Your task to perform on an android device: Go to battery settings Image 0: 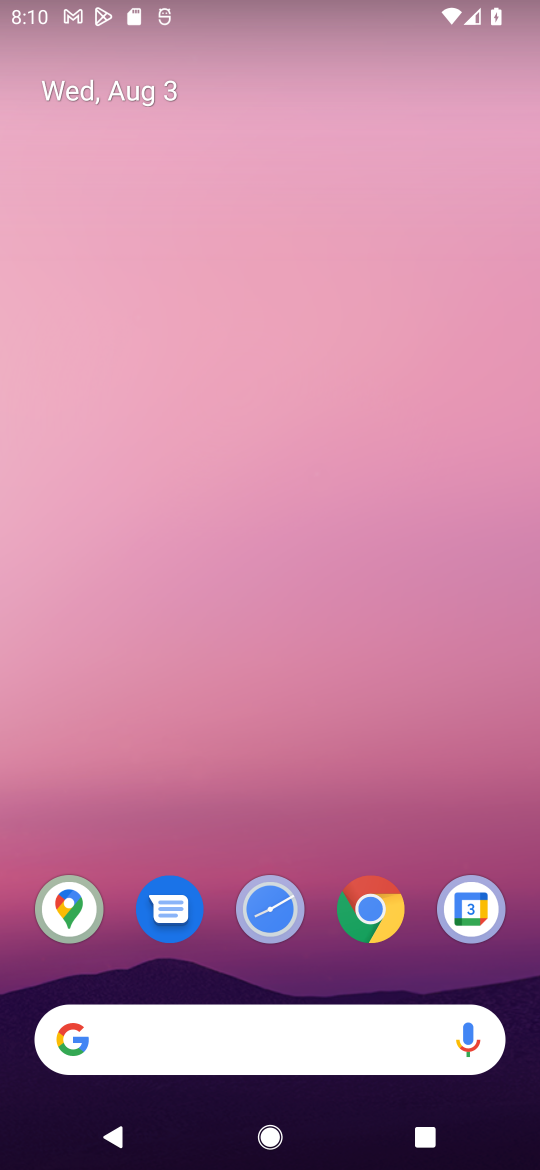
Step 0: press home button
Your task to perform on an android device: Go to battery settings Image 1: 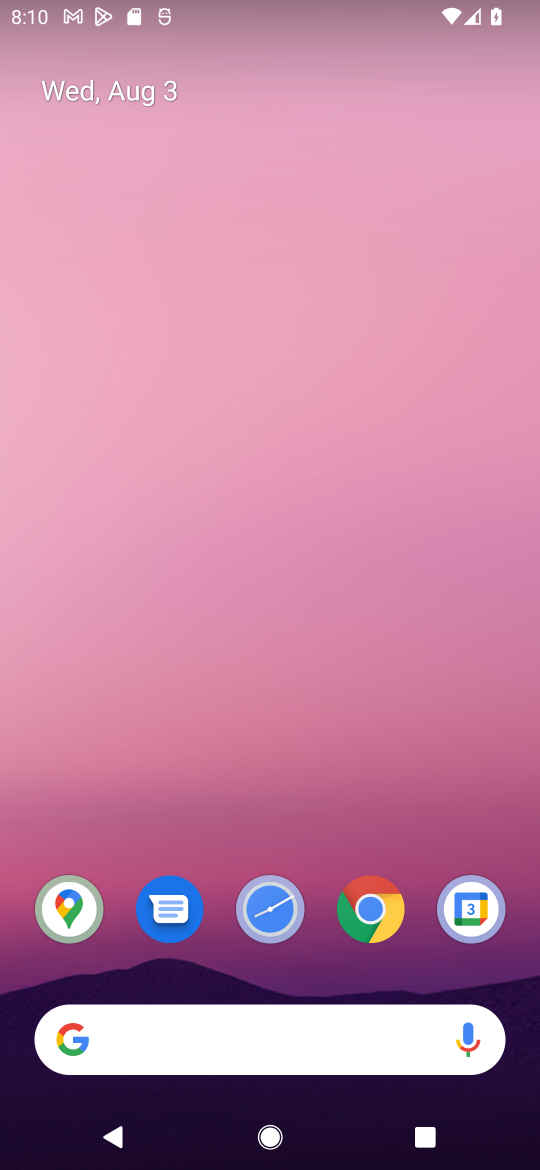
Step 1: drag from (338, 767) to (393, 221)
Your task to perform on an android device: Go to battery settings Image 2: 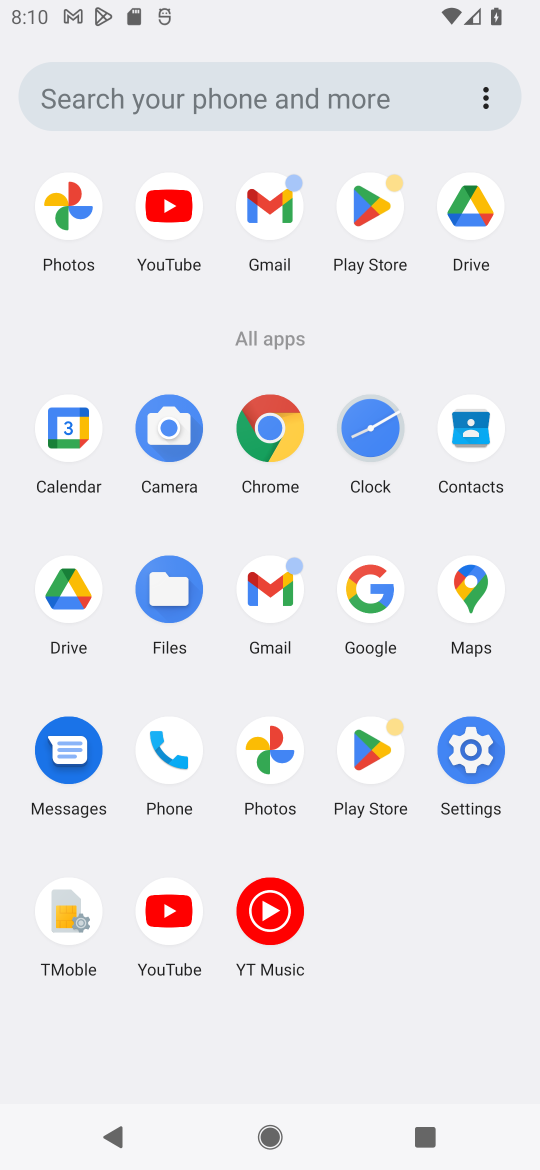
Step 2: click (473, 762)
Your task to perform on an android device: Go to battery settings Image 3: 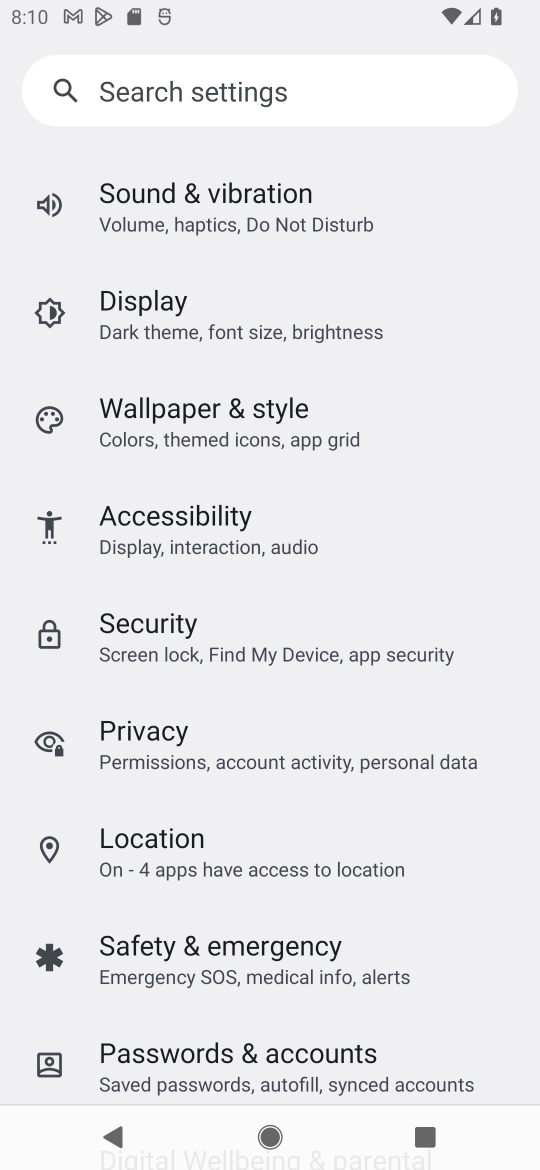
Step 3: drag from (453, 937) to (476, 757)
Your task to perform on an android device: Go to battery settings Image 4: 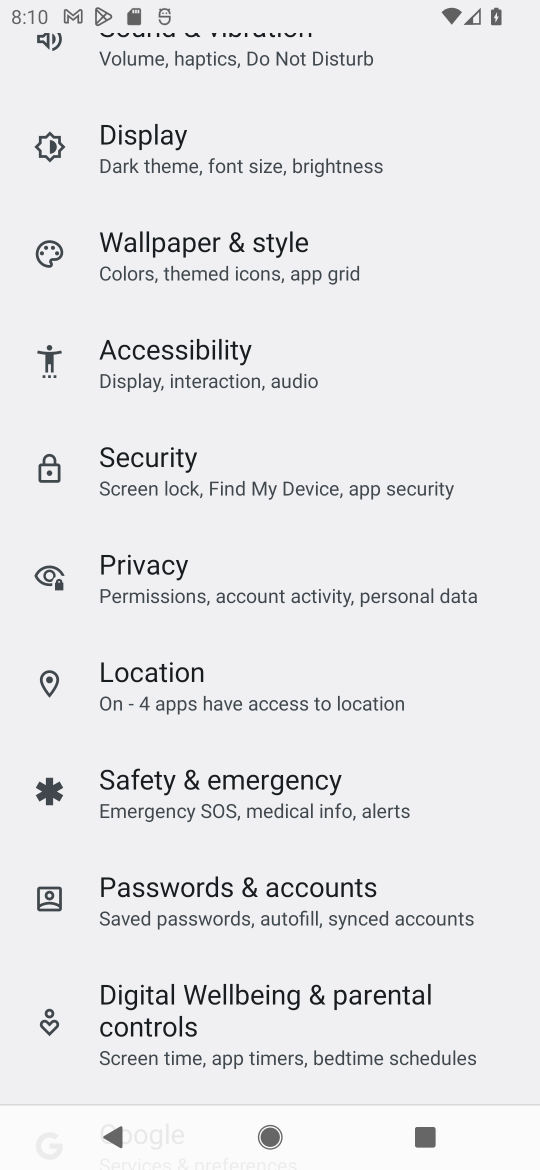
Step 4: drag from (482, 982) to (498, 710)
Your task to perform on an android device: Go to battery settings Image 5: 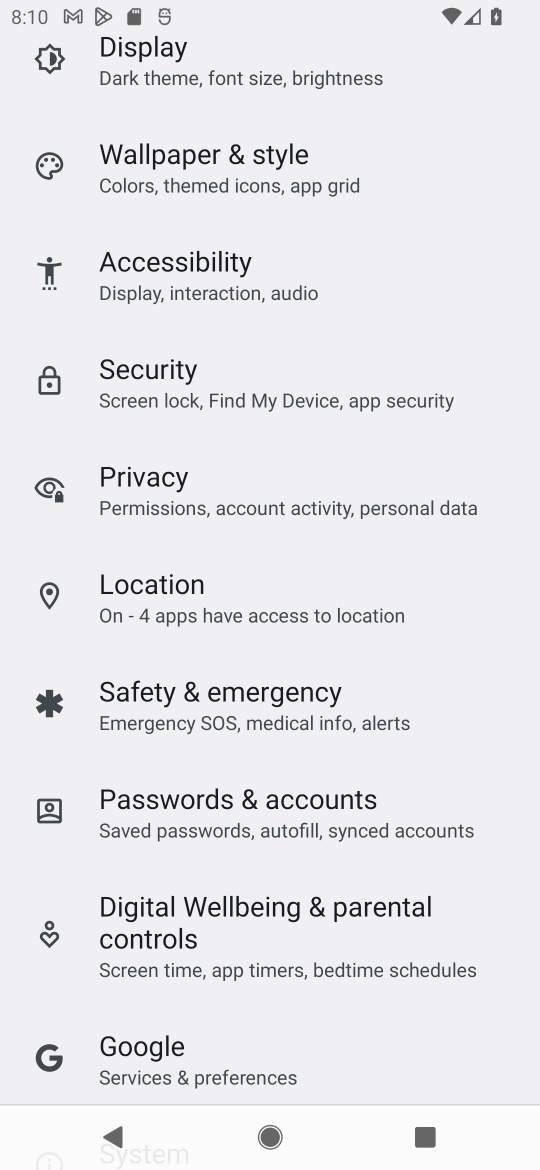
Step 5: drag from (439, 1022) to (441, 744)
Your task to perform on an android device: Go to battery settings Image 6: 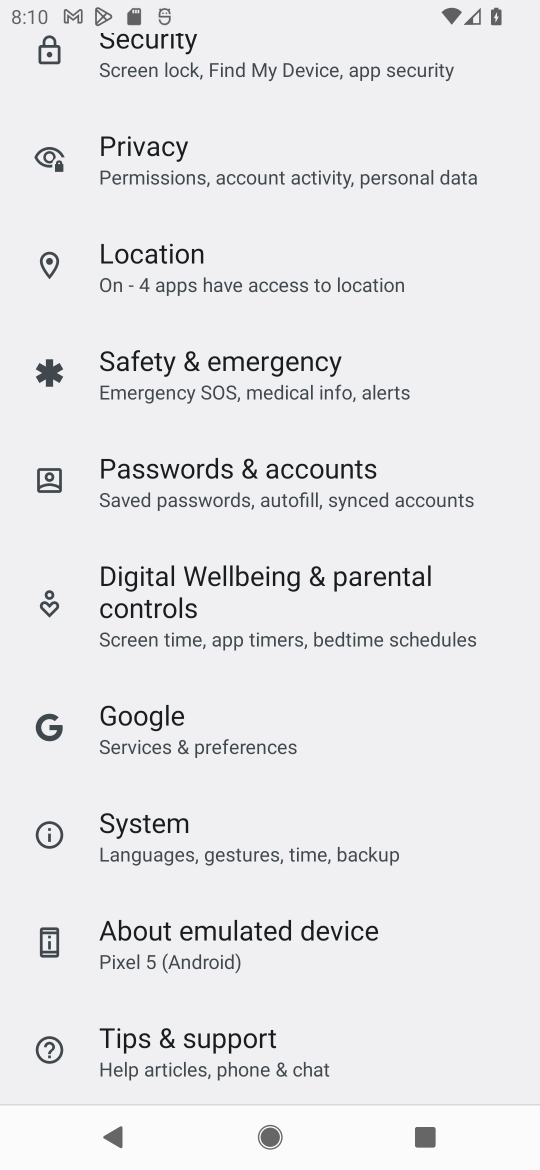
Step 6: drag from (444, 975) to (450, 749)
Your task to perform on an android device: Go to battery settings Image 7: 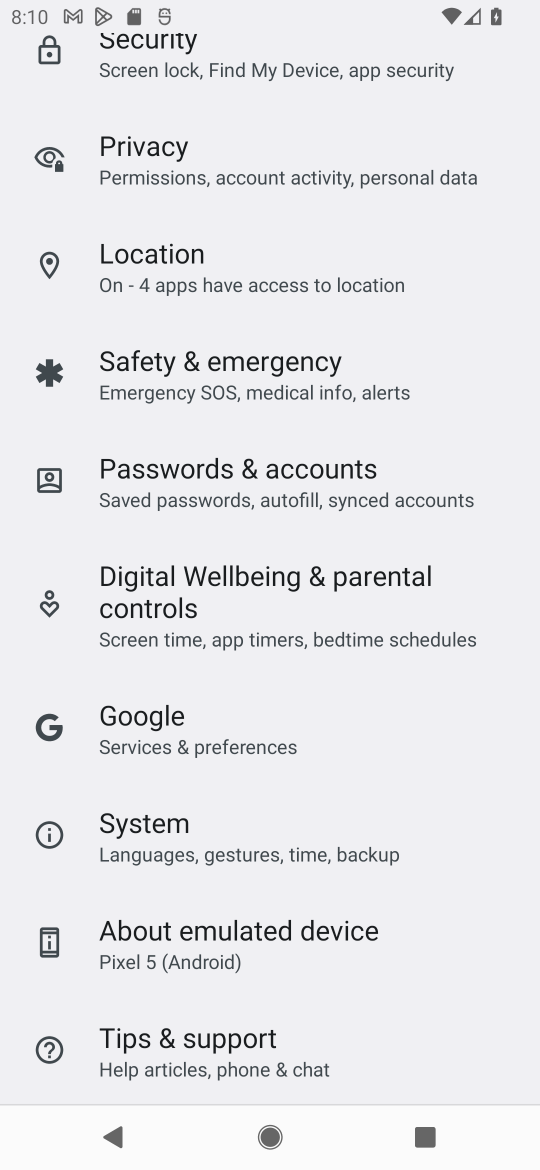
Step 7: drag from (481, 500) to (484, 735)
Your task to perform on an android device: Go to battery settings Image 8: 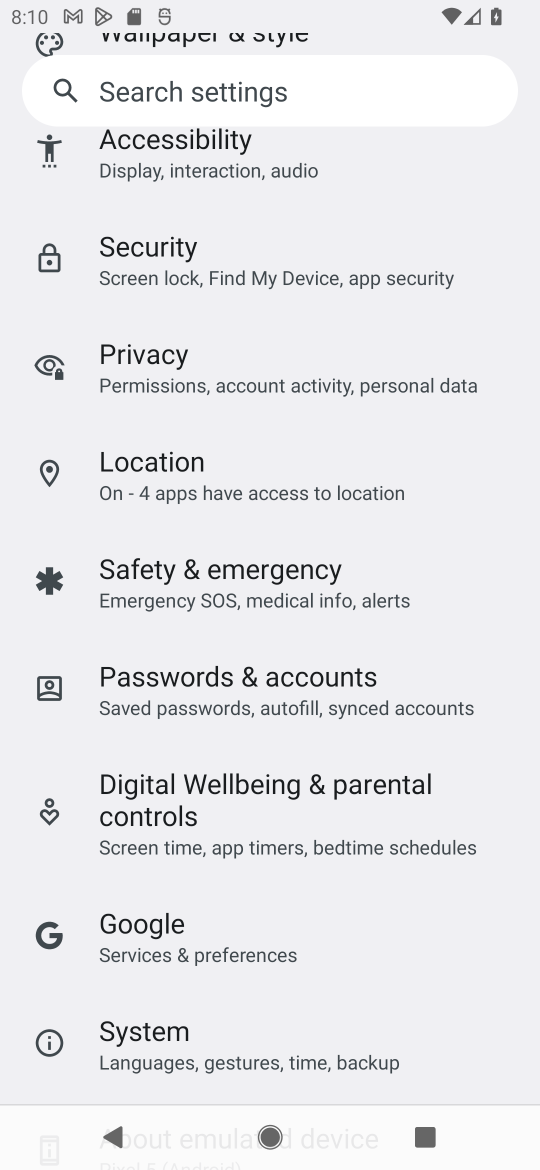
Step 8: drag from (473, 428) to (480, 716)
Your task to perform on an android device: Go to battery settings Image 9: 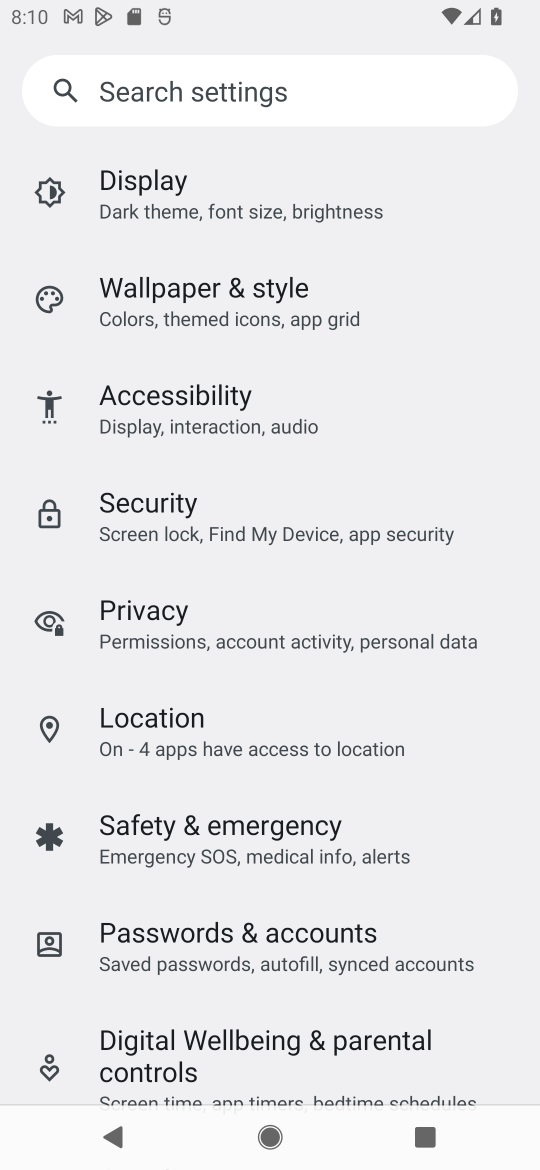
Step 9: drag from (464, 401) to (467, 675)
Your task to perform on an android device: Go to battery settings Image 10: 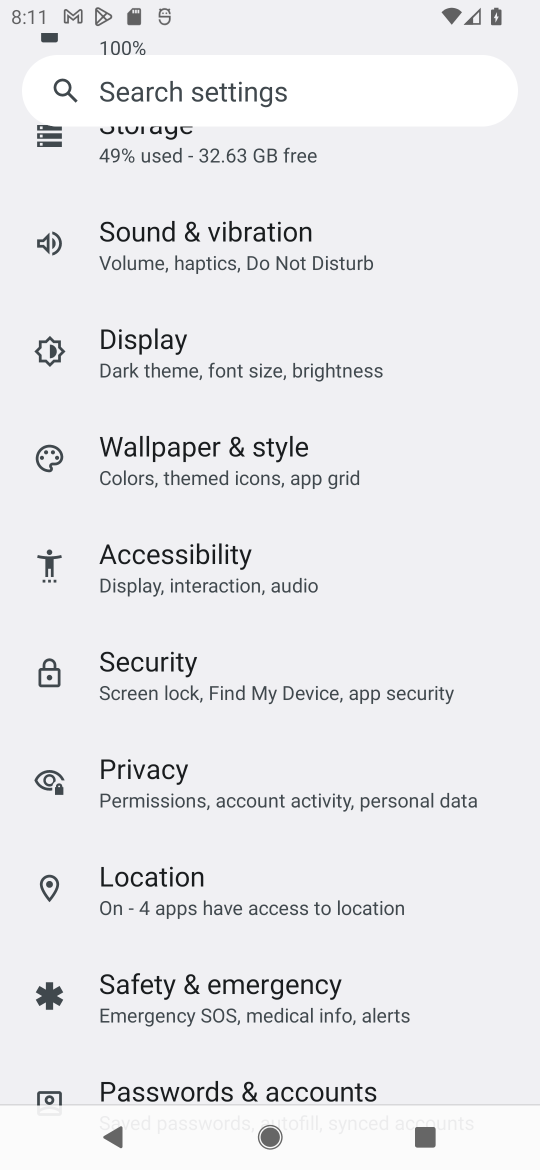
Step 10: drag from (458, 382) to (460, 624)
Your task to perform on an android device: Go to battery settings Image 11: 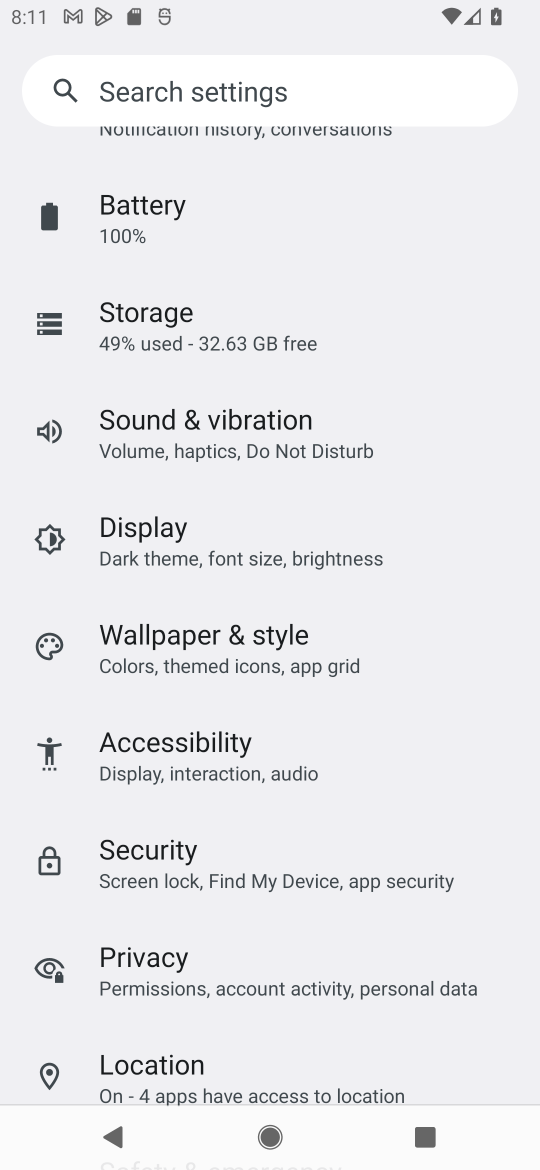
Step 11: drag from (455, 293) to (451, 607)
Your task to perform on an android device: Go to battery settings Image 12: 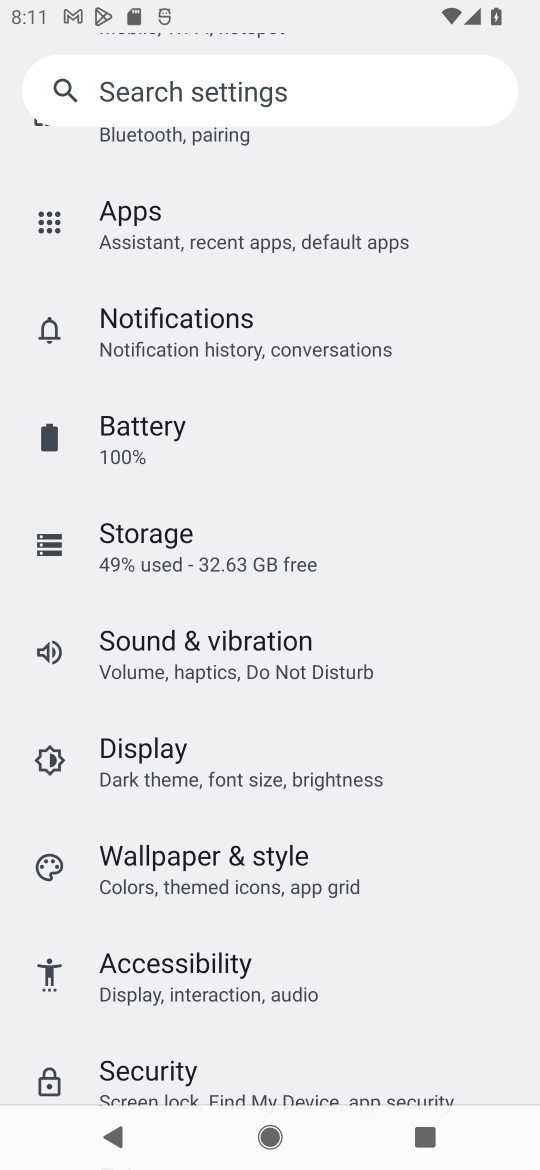
Step 12: drag from (454, 342) to (439, 564)
Your task to perform on an android device: Go to battery settings Image 13: 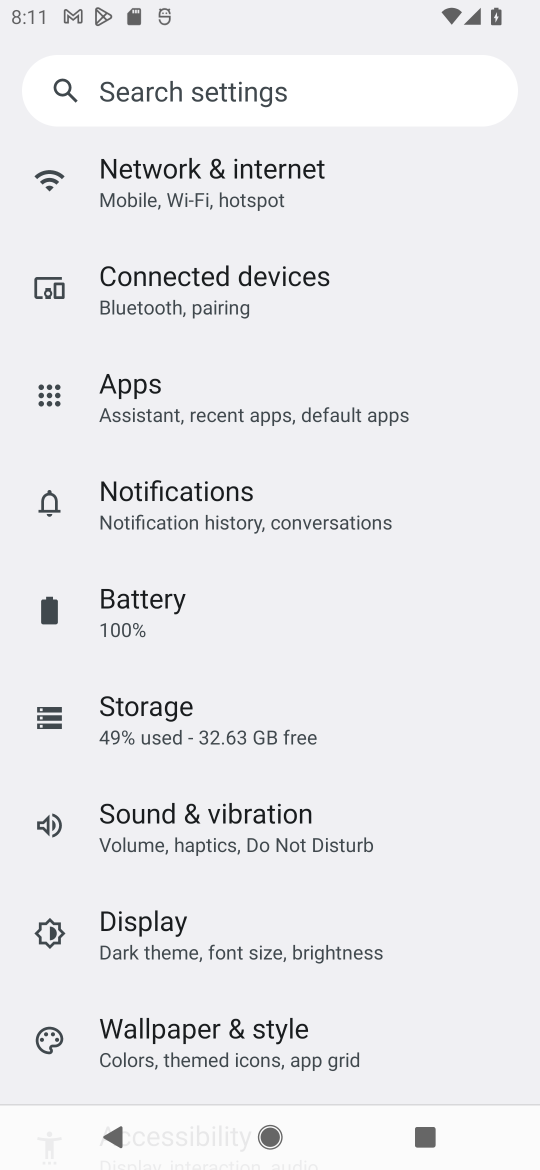
Step 13: drag from (450, 511) to (450, 608)
Your task to perform on an android device: Go to battery settings Image 14: 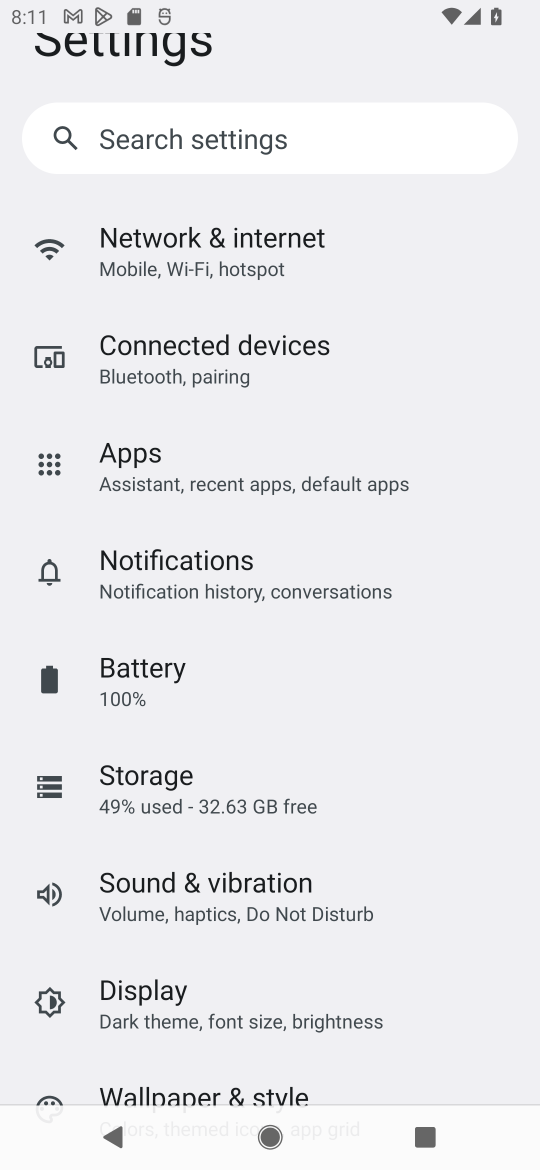
Step 14: click (209, 679)
Your task to perform on an android device: Go to battery settings Image 15: 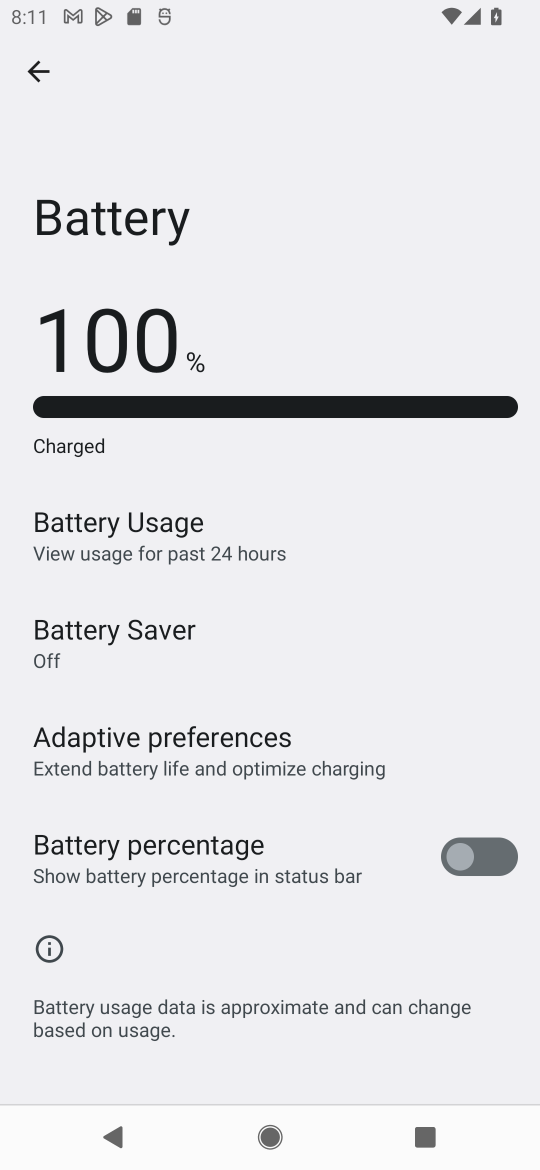
Step 15: task complete